Your task to perform on an android device: Is it going to rain today? Image 0: 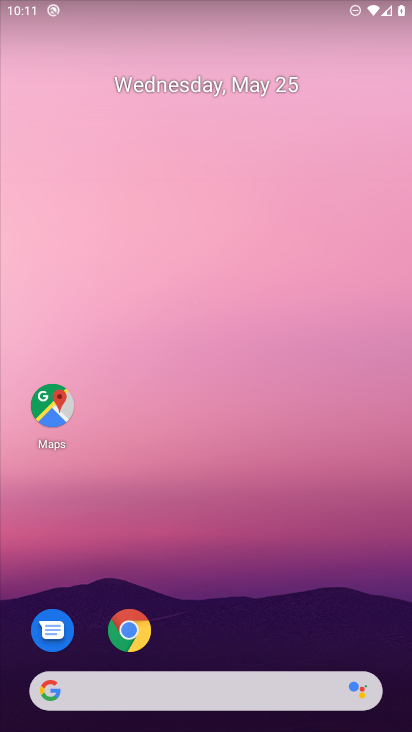
Step 0: drag from (204, 674) to (263, 393)
Your task to perform on an android device: Is it going to rain today? Image 1: 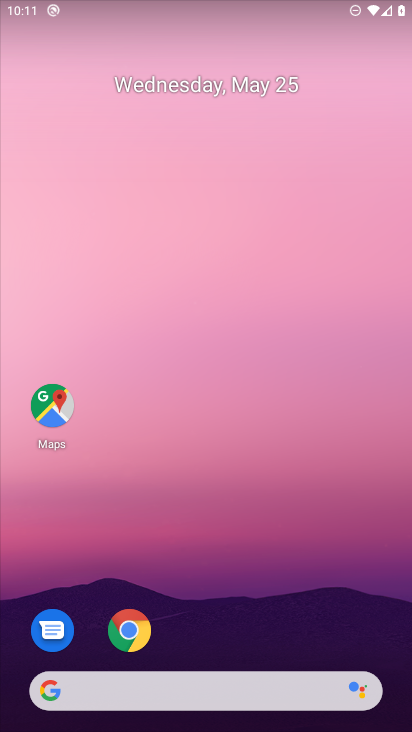
Step 1: drag from (174, 674) to (227, 402)
Your task to perform on an android device: Is it going to rain today? Image 2: 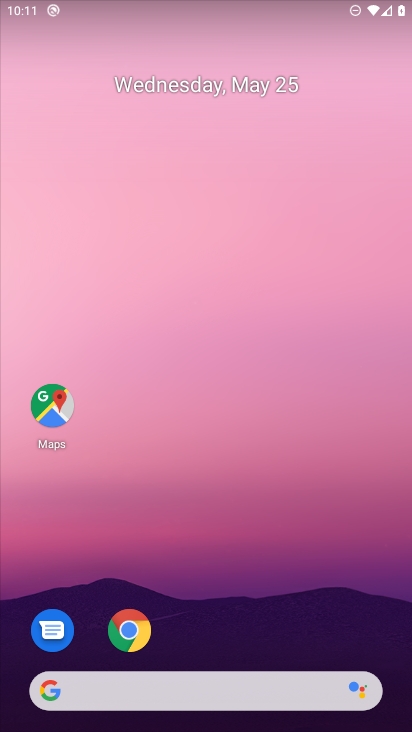
Step 2: drag from (302, 663) to (345, 106)
Your task to perform on an android device: Is it going to rain today? Image 3: 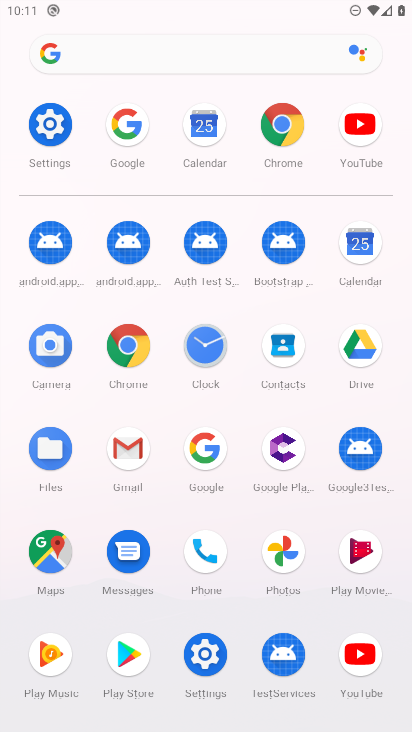
Step 3: click (134, 121)
Your task to perform on an android device: Is it going to rain today? Image 4: 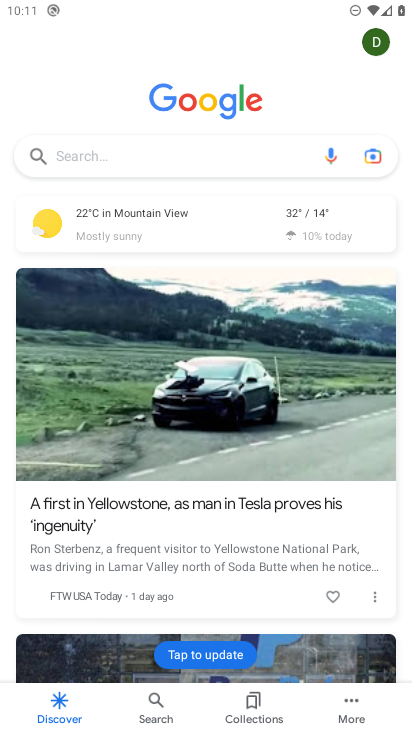
Step 4: click (96, 154)
Your task to perform on an android device: Is it going to rain today? Image 5: 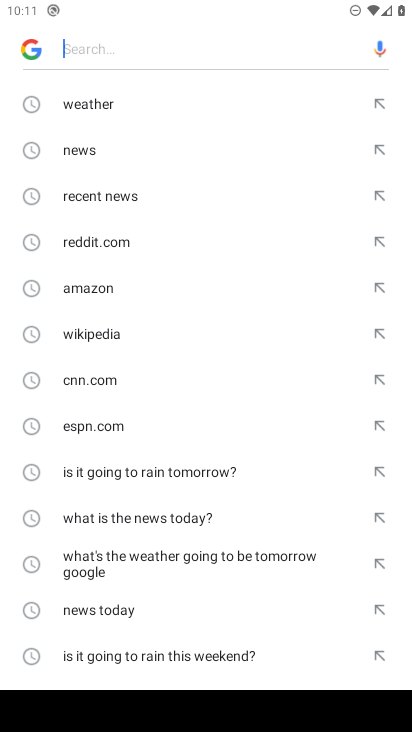
Step 5: drag from (138, 640) to (166, 366)
Your task to perform on an android device: Is it going to rain today? Image 6: 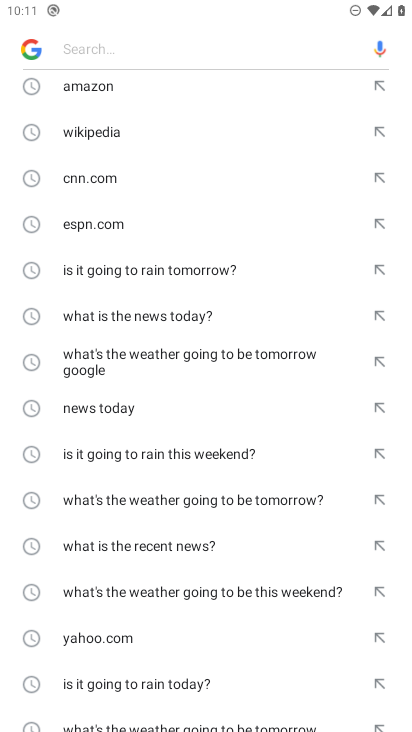
Step 6: click (141, 683)
Your task to perform on an android device: Is it going to rain today? Image 7: 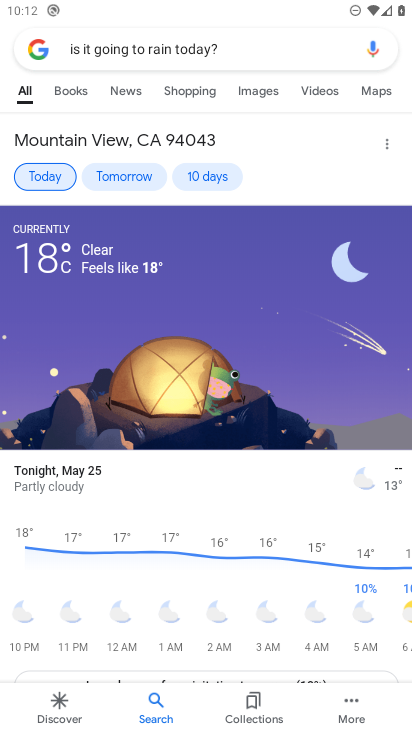
Step 7: task complete